Your task to perform on an android device: Is it going to rain this weekend? Image 0: 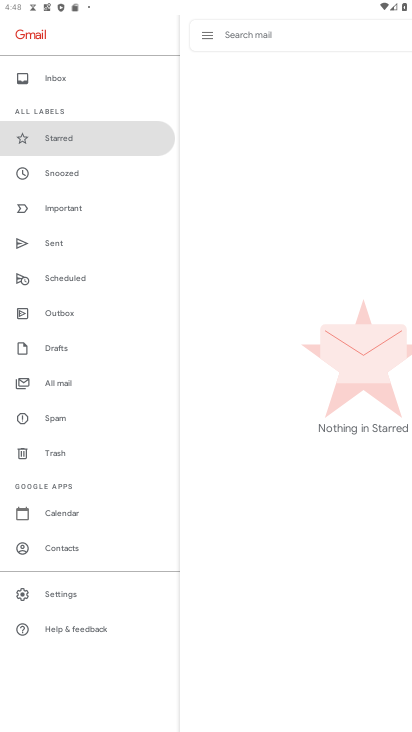
Step 0: press home button
Your task to perform on an android device: Is it going to rain this weekend? Image 1: 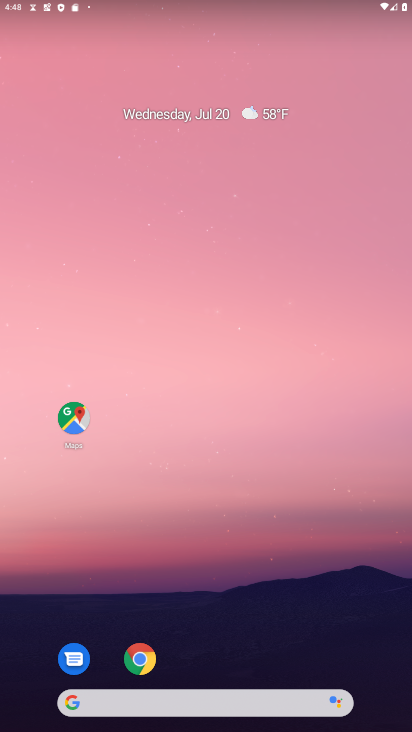
Step 1: drag from (298, 708) to (349, 42)
Your task to perform on an android device: Is it going to rain this weekend? Image 2: 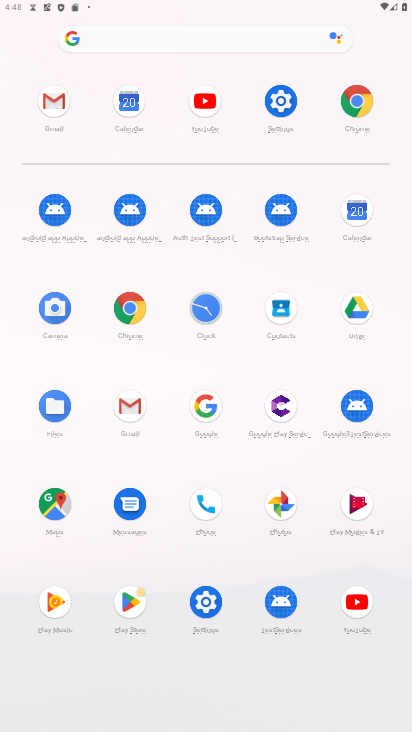
Step 2: click (354, 210)
Your task to perform on an android device: Is it going to rain this weekend? Image 3: 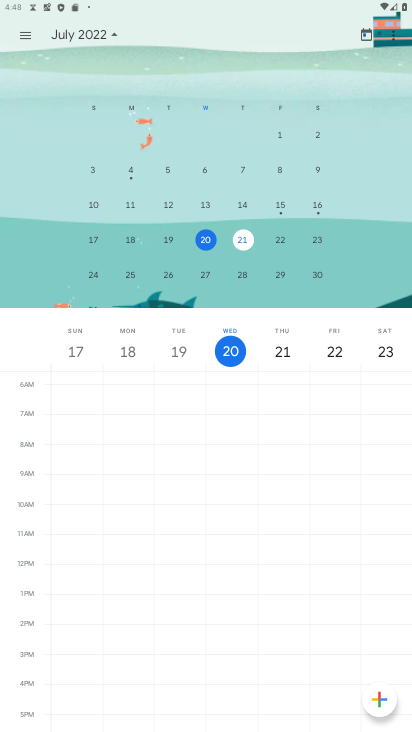
Step 3: press home button
Your task to perform on an android device: Is it going to rain this weekend? Image 4: 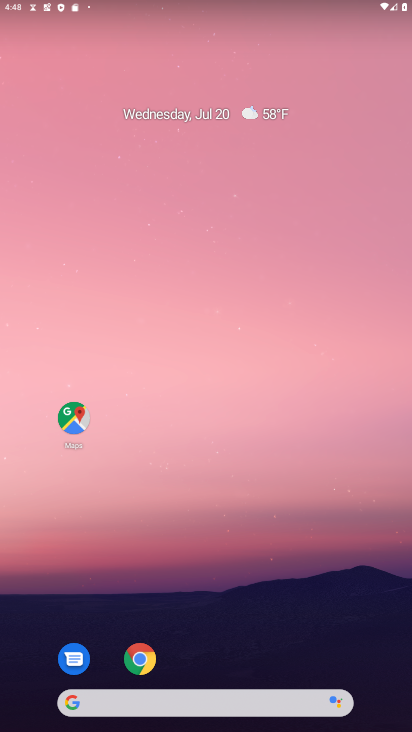
Step 4: drag from (243, 689) to (328, 43)
Your task to perform on an android device: Is it going to rain this weekend? Image 5: 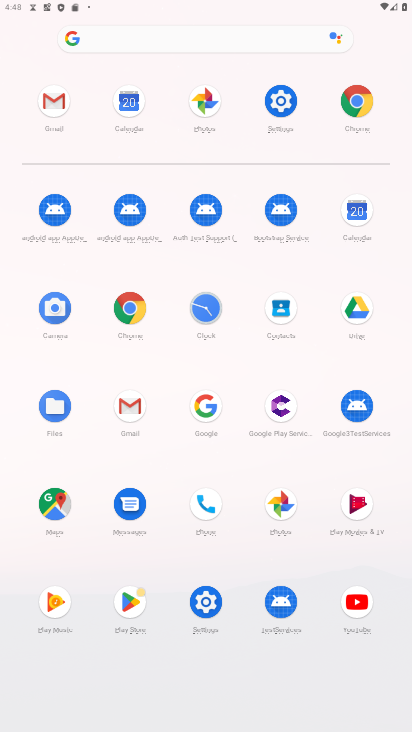
Step 5: click (136, 302)
Your task to perform on an android device: Is it going to rain this weekend? Image 6: 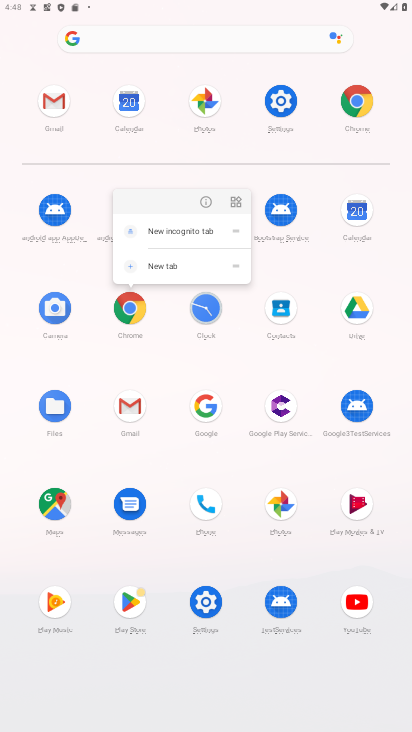
Step 6: click (142, 305)
Your task to perform on an android device: Is it going to rain this weekend? Image 7: 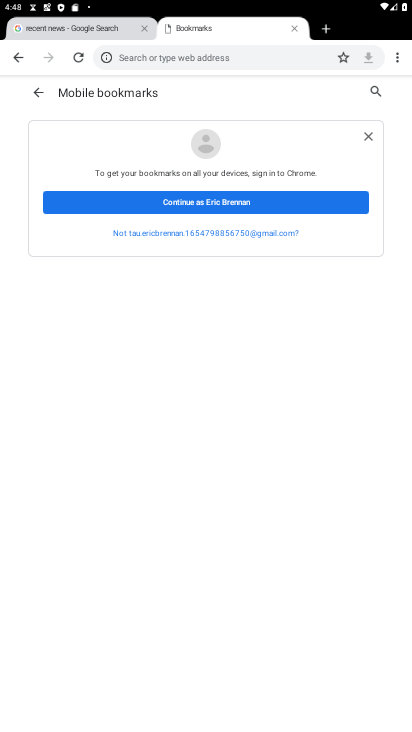
Step 7: click (214, 56)
Your task to perform on an android device: Is it going to rain this weekend? Image 8: 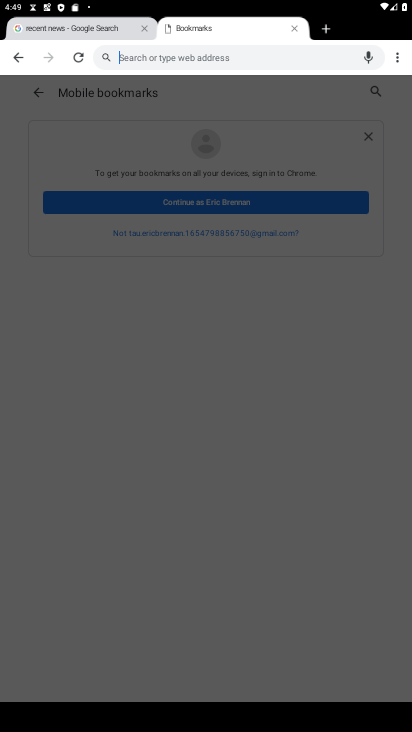
Step 8: type "going to rain this weekend"
Your task to perform on an android device: Is it going to rain this weekend? Image 9: 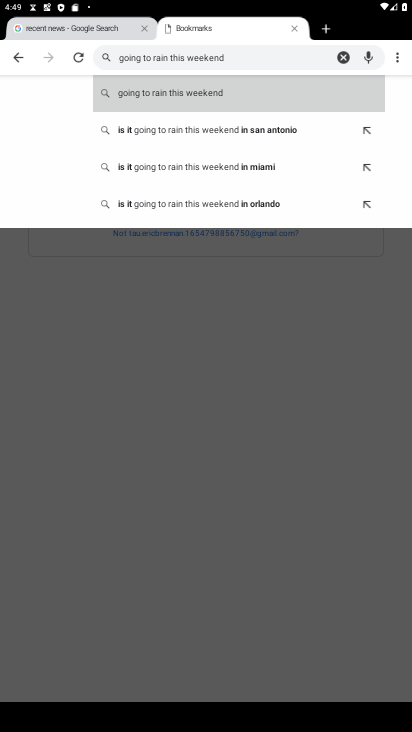
Step 9: click (265, 90)
Your task to perform on an android device: Is it going to rain this weekend? Image 10: 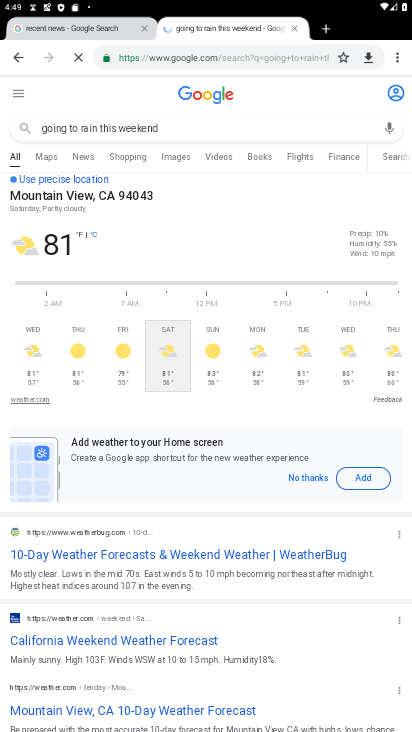
Step 10: task complete